Your task to perform on an android device: Open Google Image 0: 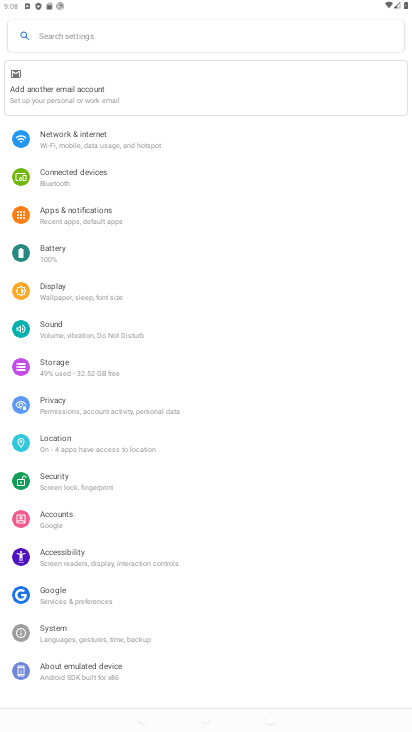
Step 0: press home button
Your task to perform on an android device: Open Google Image 1: 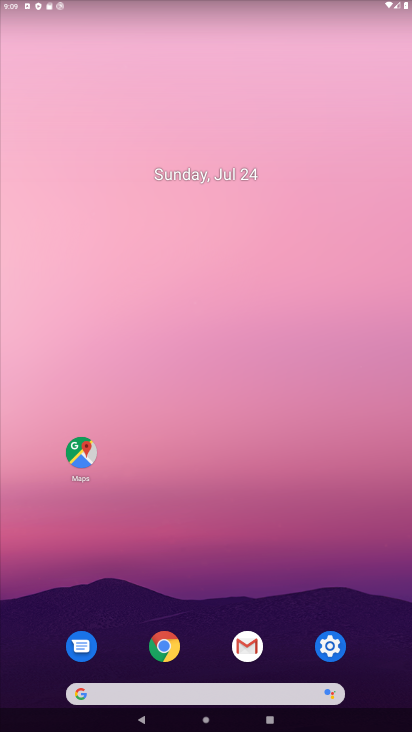
Step 1: click (156, 658)
Your task to perform on an android device: Open Google Image 2: 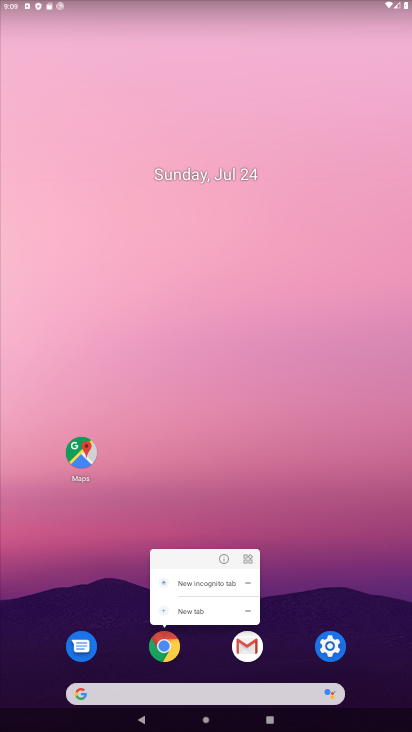
Step 2: click (81, 691)
Your task to perform on an android device: Open Google Image 3: 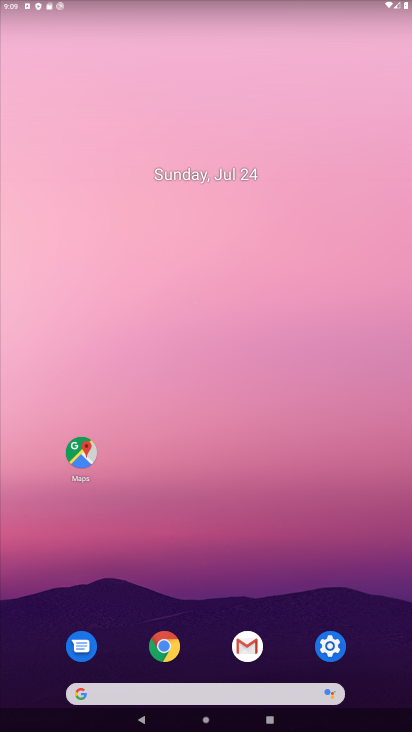
Step 3: click (101, 696)
Your task to perform on an android device: Open Google Image 4: 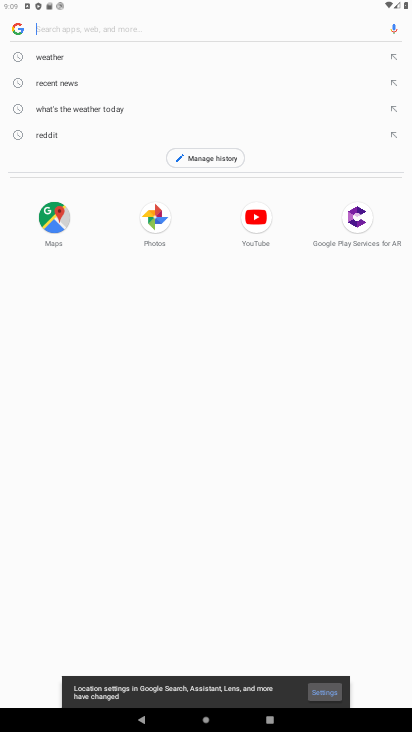
Step 4: click (12, 27)
Your task to perform on an android device: Open Google Image 5: 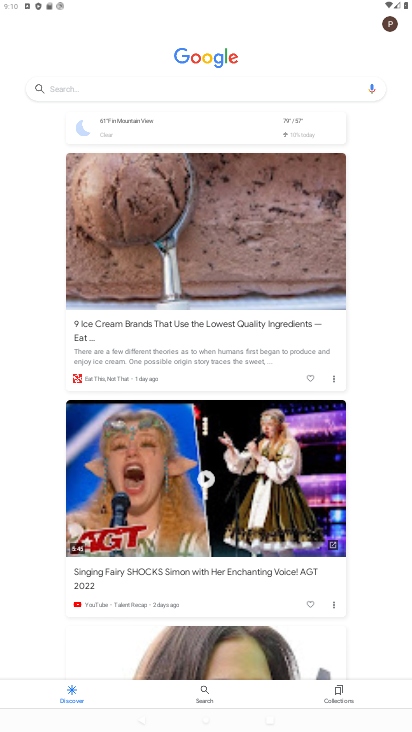
Step 5: task complete